Your task to perform on an android device: all mails in gmail Image 0: 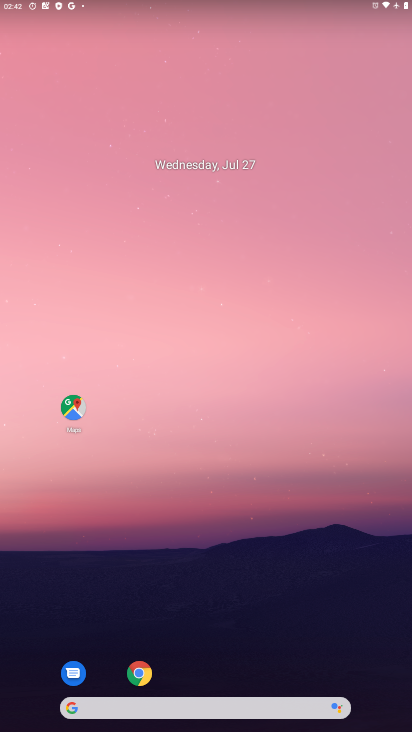
Step 0: drag from (256, 654) to (280, 22)
Your task to perform on an android device: all mails in gmail Image 1: 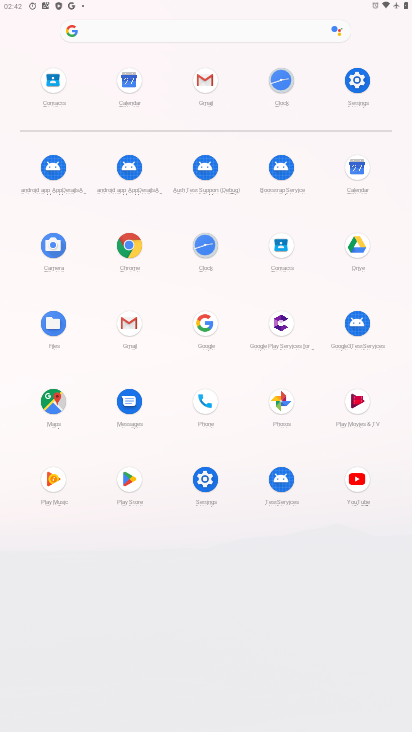
Step 1: click (210, 88)
Your task to perform on an android device: all mails in gmail Image 2: 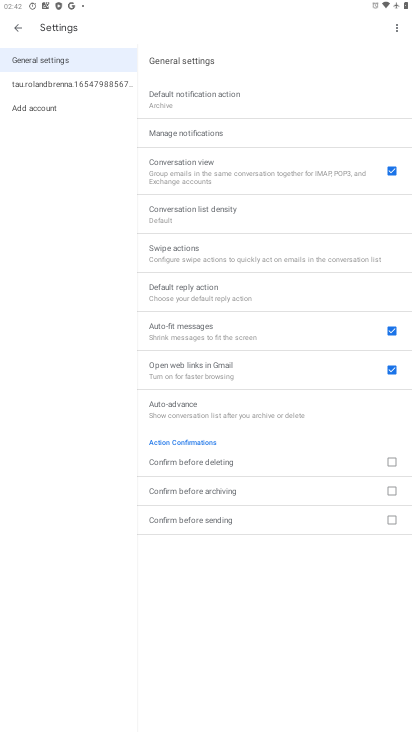
Step 2: click (19, 33)
Your task to perform on an android device: all mails in gmail Image 3: 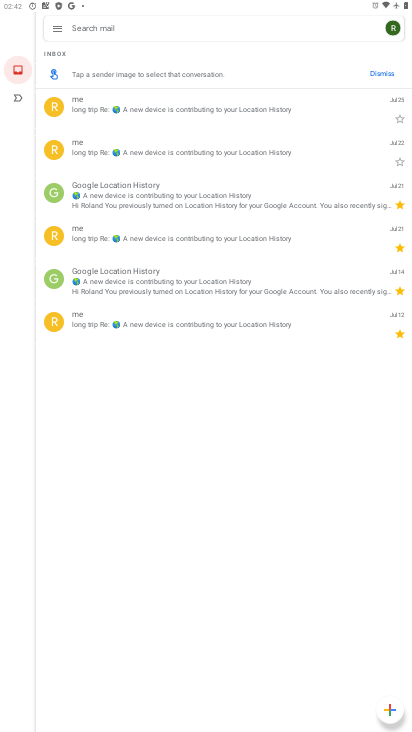
Step 3: click (57, 33)
Your task to perform on an android device: all mails in gmail Image 4: 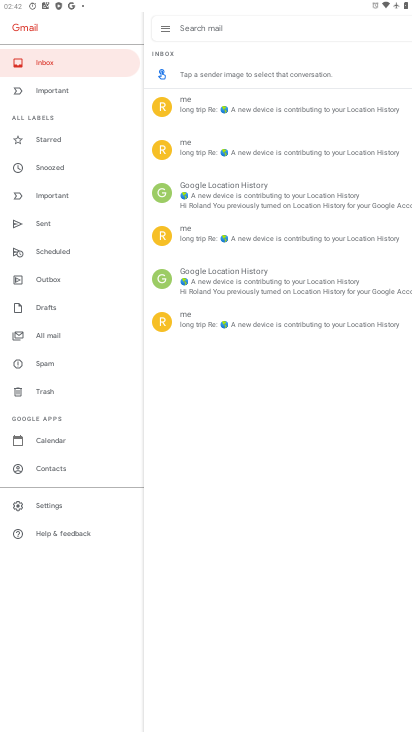
Step 4: click (51, 340)
Your task to perform on an android device: all mails in gmail Image 5: 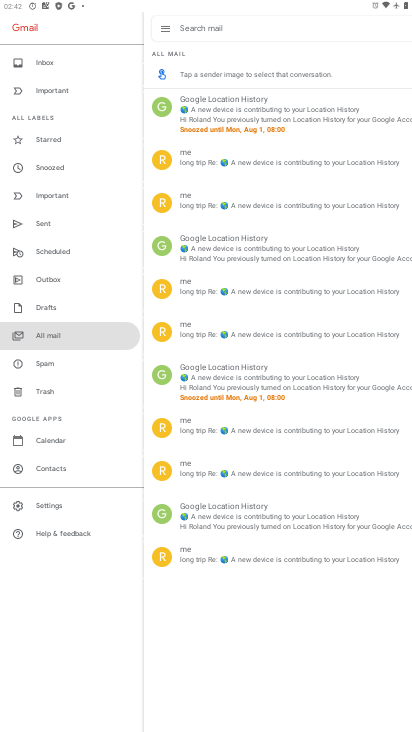
Step 5: task complete